Your task to perform on an android device: Turn off the flashlight Image 0: 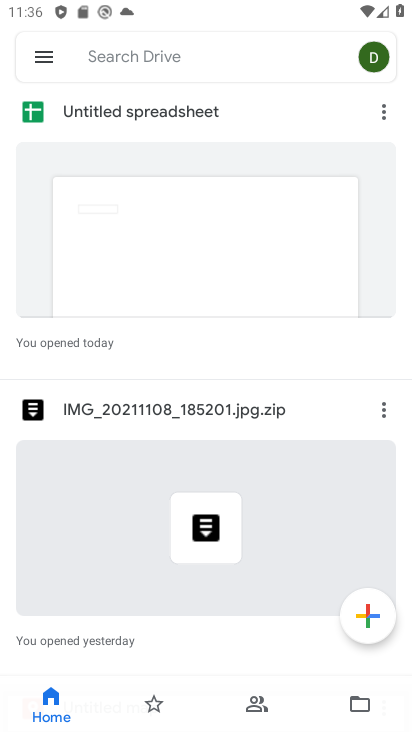
Step 0: press home button
Your task to perform on an android device: Turn off the flashlight Image 1: 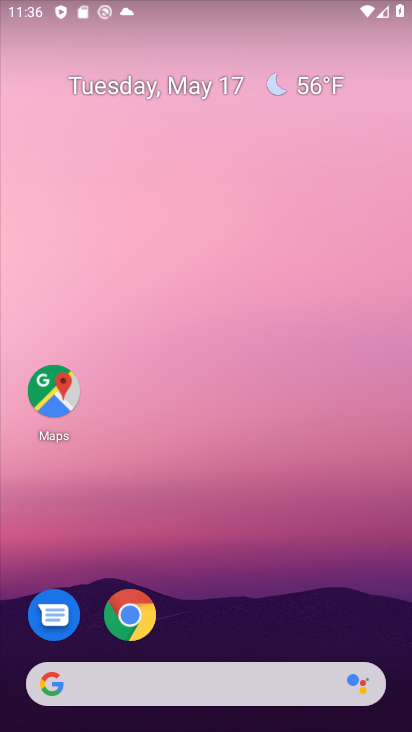
Step 1: drag from (164, 637) to (182, 7)
Your task to perform on an android device: Turn off the flashlight Image 2: 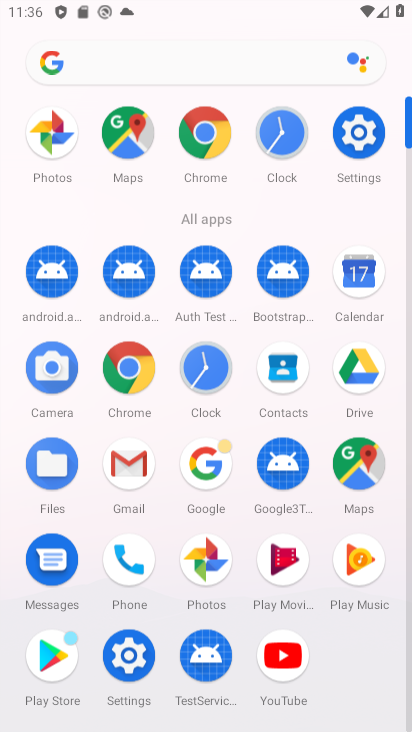
Step 2: click (359, 209)
Your task to perform on an android device: Turn off the flashlight Image 3: 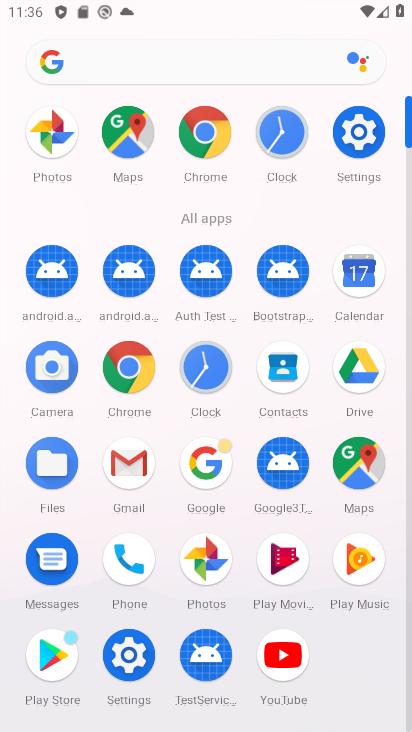
Step 3: click (356, 145)
Your task to perform on an android device: Turn off the flashlight Image 4: 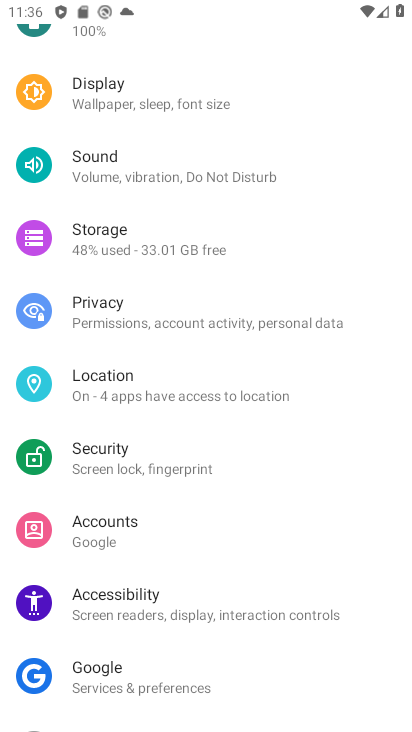
Step 4: task complete